Your task to perform on an android device: turn off notifications settings in the gmail app Image 0: 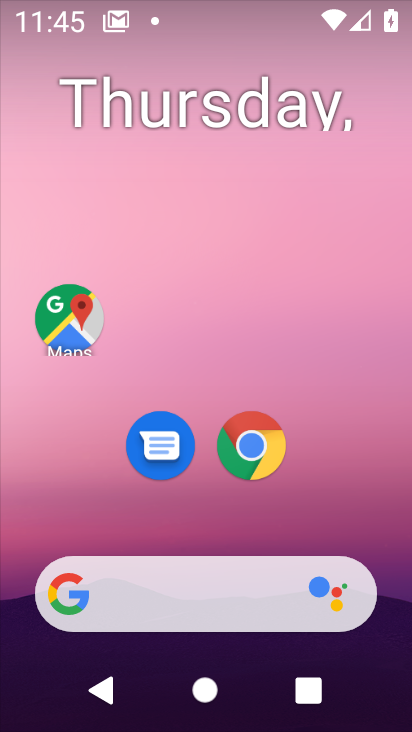
Step 0: drag from (167, 549) to (254, 127)
Your task to perform on an android device: turn off notifications settings in the gmail app Image 1: 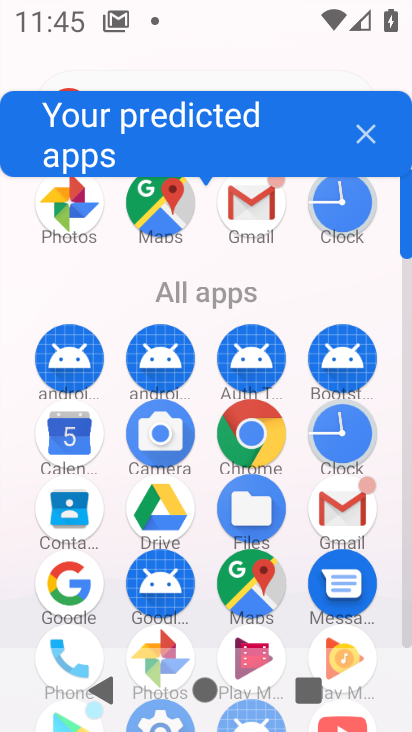
Step 1: drag from (169, 648) to (205, 390)
Your task to perform on an android device: turn off notifications settings in the gmail app Image 2: 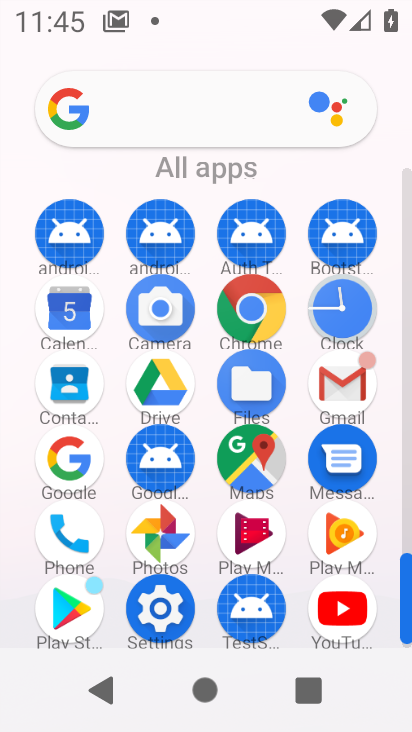
Step 2: click (346, 392)
Your task to perform on an android device: turn off notifications settings in the gmail app Image 3: 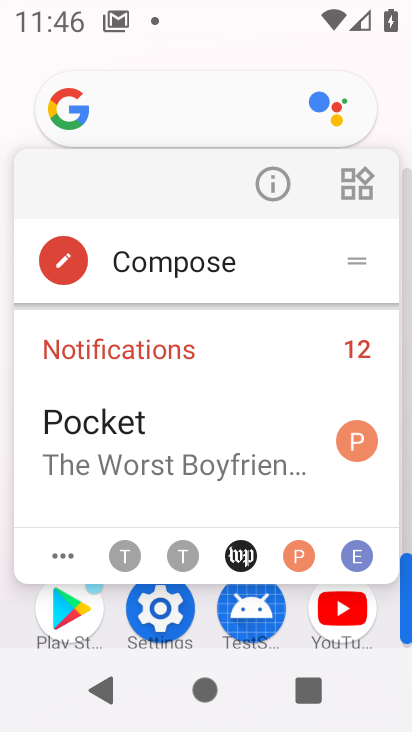
Step 3: press back button
Your task to perform on an android device: turn off notifications settings in the gmail app Image 4: 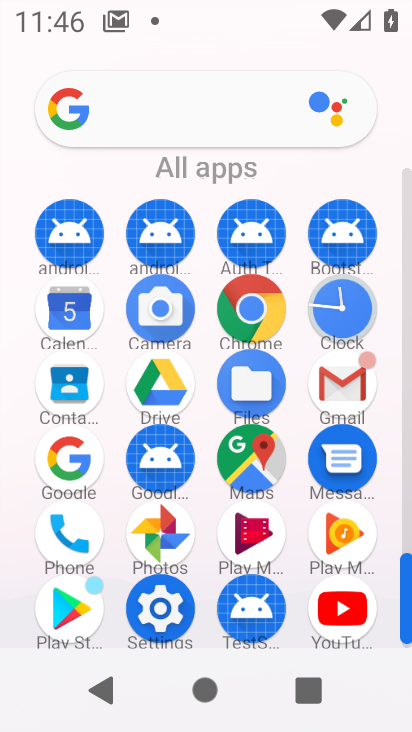
Step 4: click (347, 402)
Your task to perform on an android device: turn off notifications settings in the gmail app Image 5: 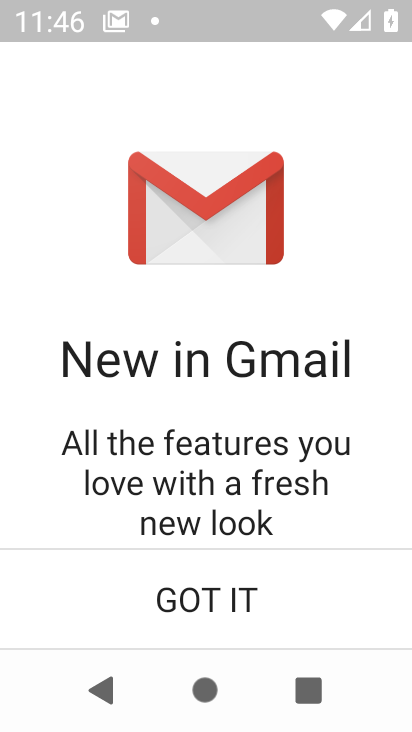
Step 5: click (208, 621)
Your task to perform on an android device: turn off notifications settings in the gmail app Image 6: 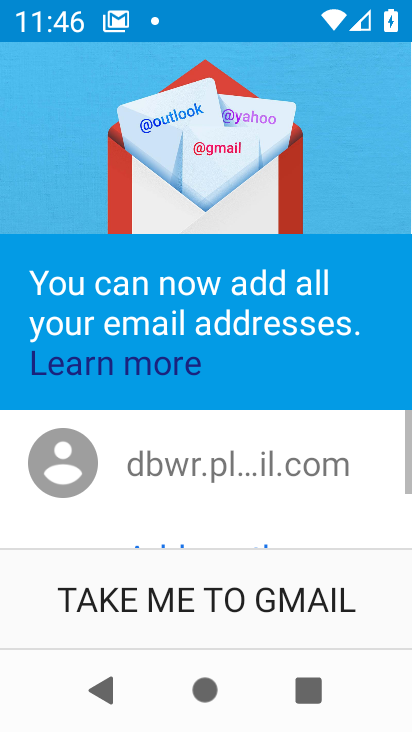
Step 6: click (208, 621)
Your task to perform on an android device: turn off notifications settings in the gmail app Image 7: 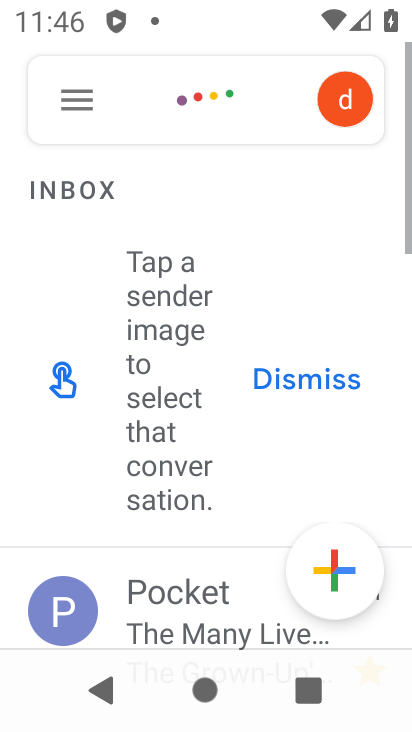
Step 7: click (86, 117)
Your task to perform on an android device: turn off notifications settings in the gmail app Image 8: 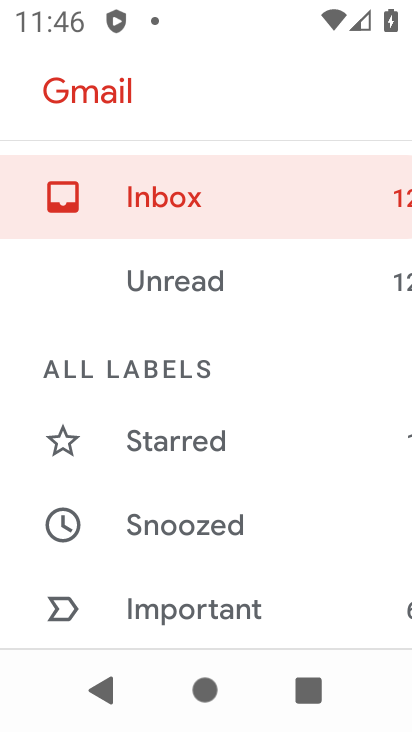
Step 8: drag from (180, 585) to (274, 156)
Your task to perform on an android device: turn off notifications settings in the gmail app Image 9: 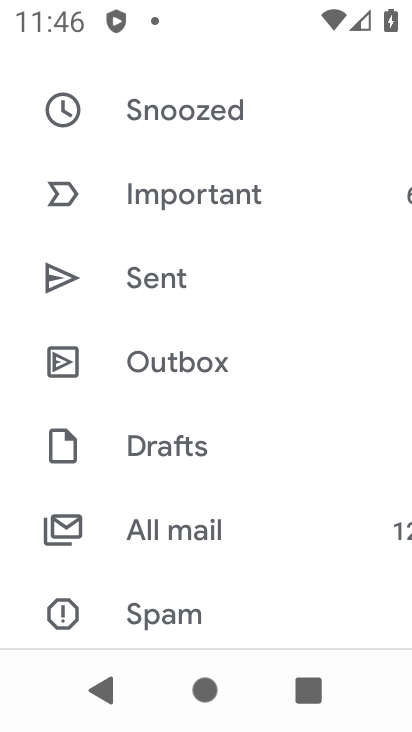
Step 9: drag from (152, 585) to (227, 207)
Your task to perform on an android device: turn off notifications settings in the gmail app Image 10: 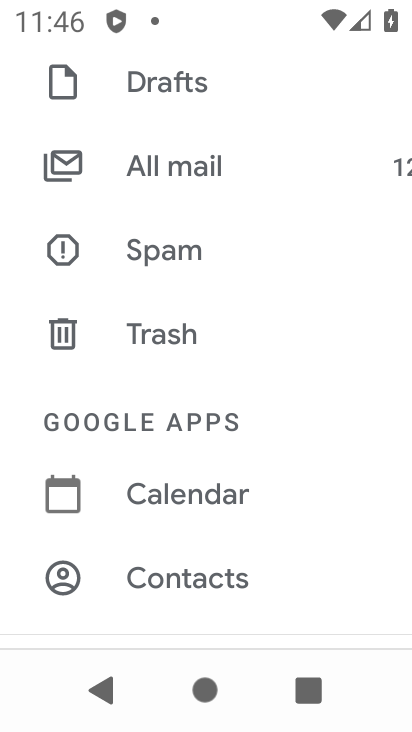
Step 10: drag from (152, 567) to (234, 247)
Your task to perform on an android device: turn off notifications settings in the gmail app Image 11: 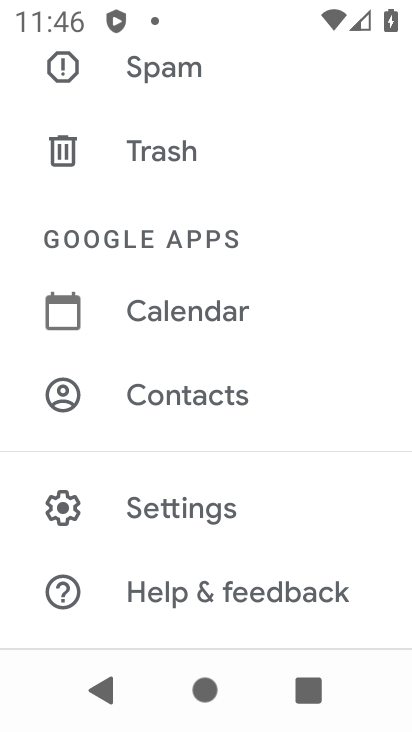
Step 11: drag from (153, 620) to (219, 302)
Your task to perform on an android device: turn off notifications settings in the gmail app Image 12: 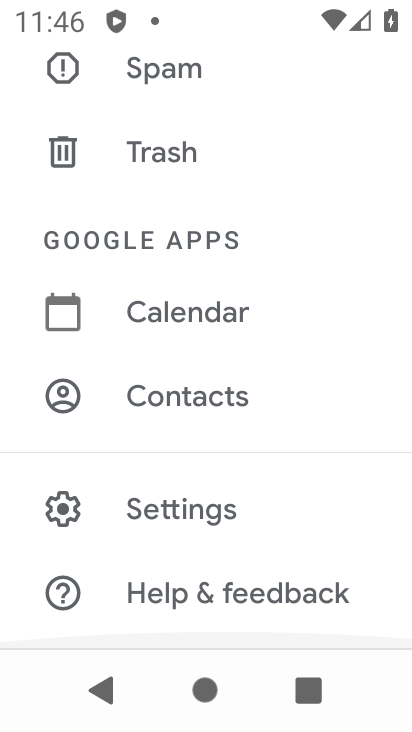
Step 12: click (228, 506)
Your task to perform on an android device: turn off notifications settings in the gmail app Image 13: 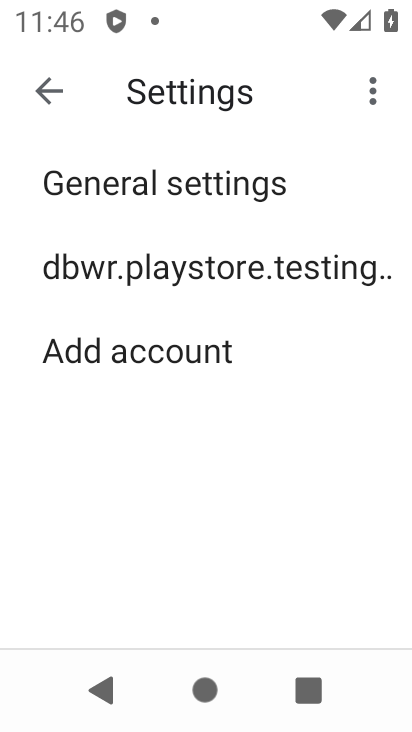
Step 13: click (283, 274)
Your task to perform on an android device: turn off notifications settings in the gmail app Image 14: 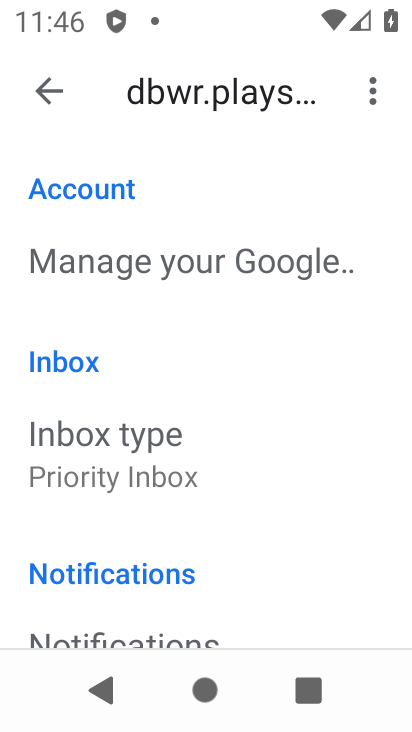
Step 14: drag from (231, 619) to (341, 152)
Your task to perform on an android device: turn off notifications settings in the gmail app Image 15: 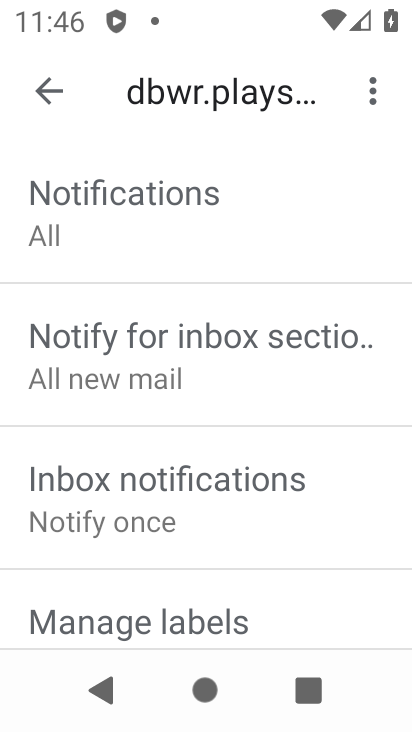
Step 15: drag from (188, 597) to (275, 219)
Your task to perform on an android device: turn off notifications settings in the gmail app Image 16: 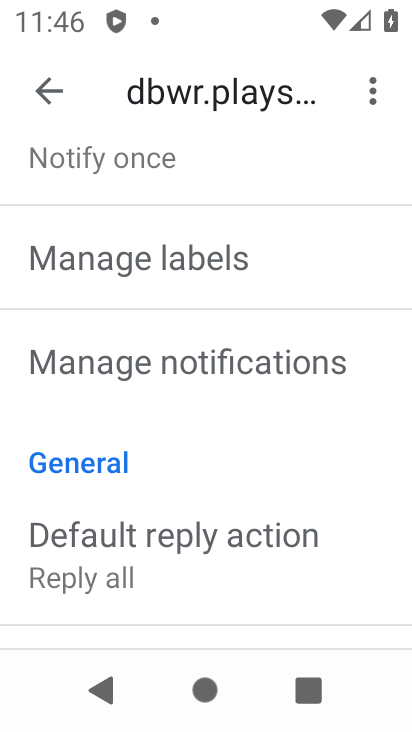
Step 16: click (236, 354)
Your task to perform on an android device: turn off notifications settings in the gmail app Image 17: 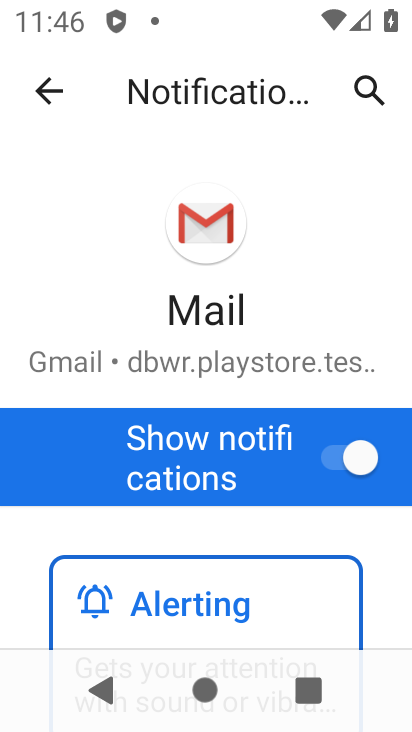
Step 17: drag from (186, 632) to (256, 354)
Your task to perform on an android device: turn off notifications settings in the gmail app Image 18: 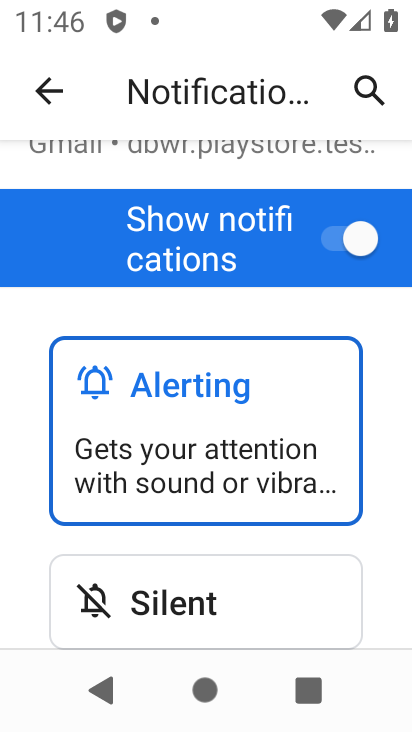
Step 18: click (329, 247)
Your task to perform on an android device: turn off notifications settings in the gmail app Image 19: 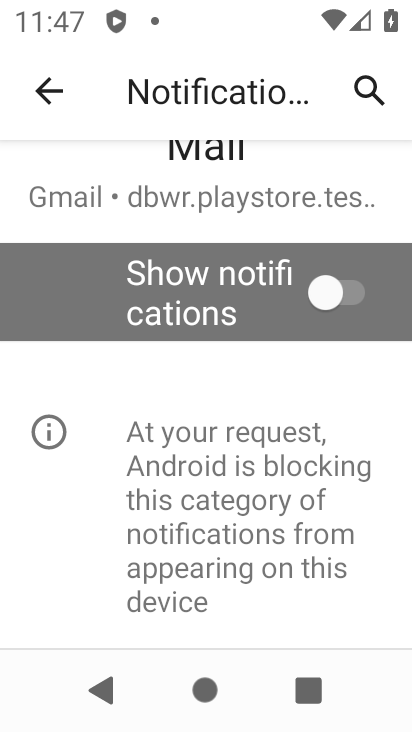
Step 19: task complete